Your task to perform on an android device: turn on improve location accuracy Image 0: 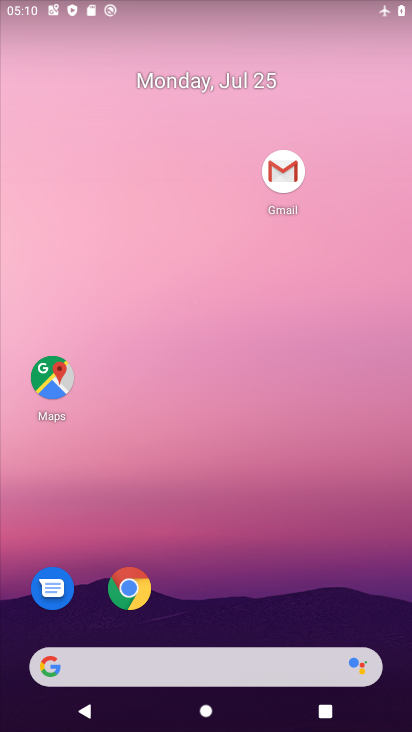
Step 0: drag from (304, 572) to (160, 4)
Your task to perform on an android device: turn on improve location accuracy Image 1: 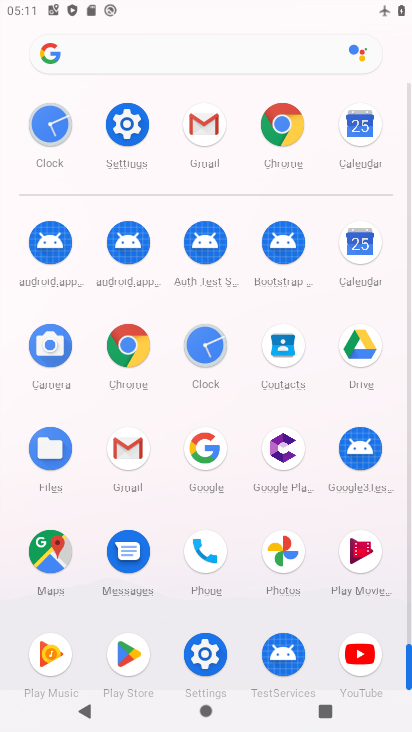
Step 1: click (135, 111)
Your task to perform on an android device: turn on improve location accuracy Image 2: 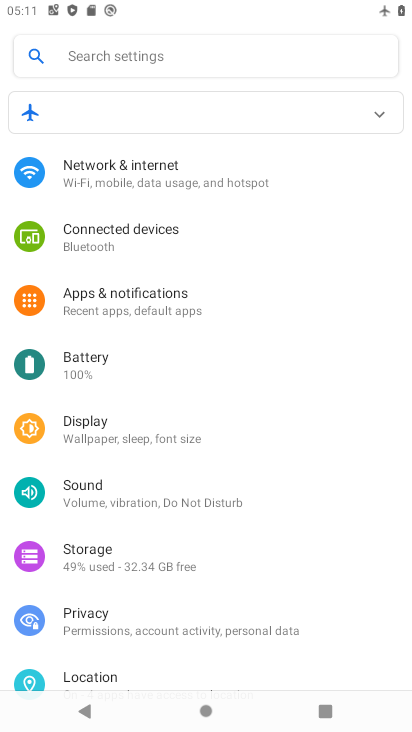
Step 2: click (131, 620)
Your task to perform on an android device: turn on improve location accuracy Image 3: 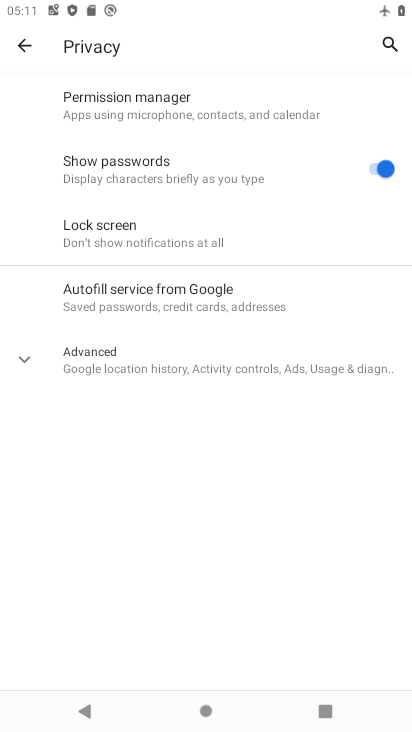
Step 3: click (131, 359)
Your task to perform on an android device: turn on improve location accuracy Image 4: 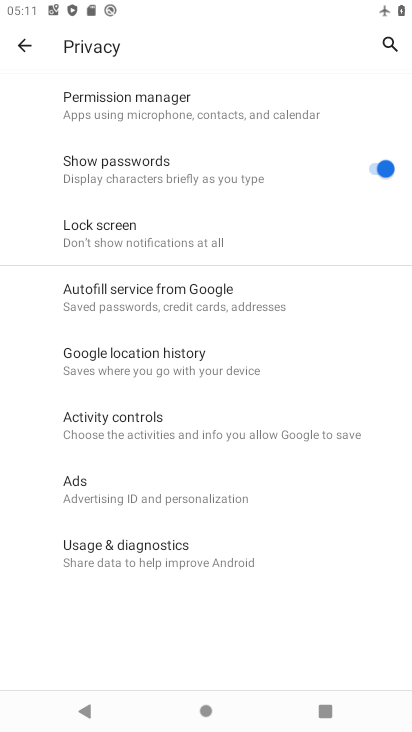
Step 4: click (31, 40)
Your task to perform on an android device: turn on improve location accuracy Image 5: 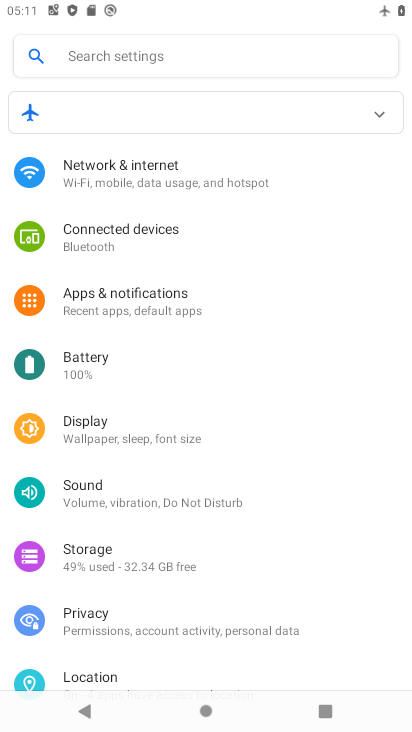
Step 5: click (91, 672)
Your task to perform on an android device: turn on improve location accuracy Image 6: 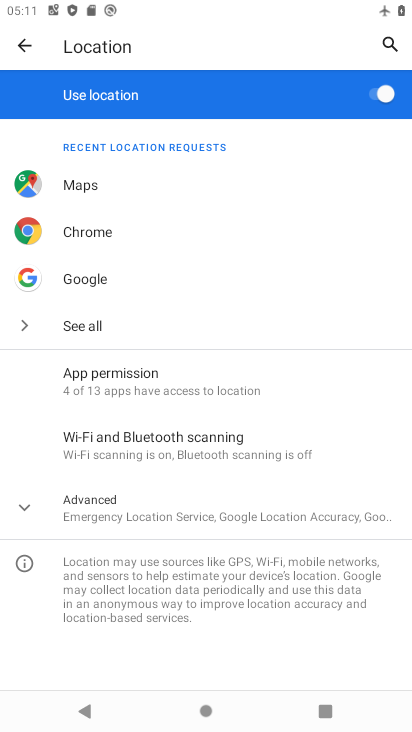
Step 6: click (104, 519)
Your task to perform on an android device: turn on improve location accuracy Image 7: 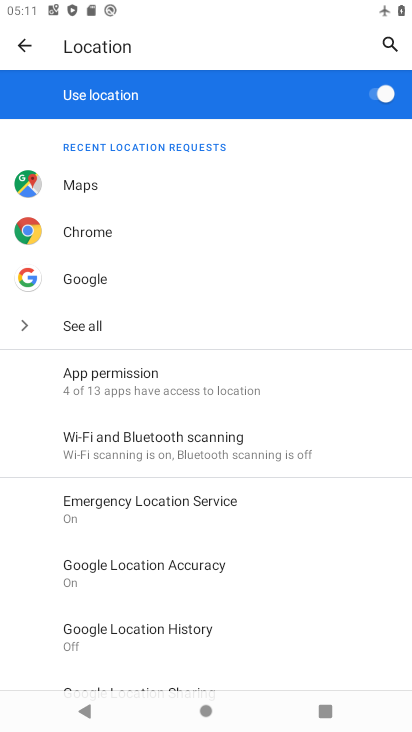
Step 7: click (174, 577)
Your task to perform on an android device: turn on improve location accuracy Image 8: 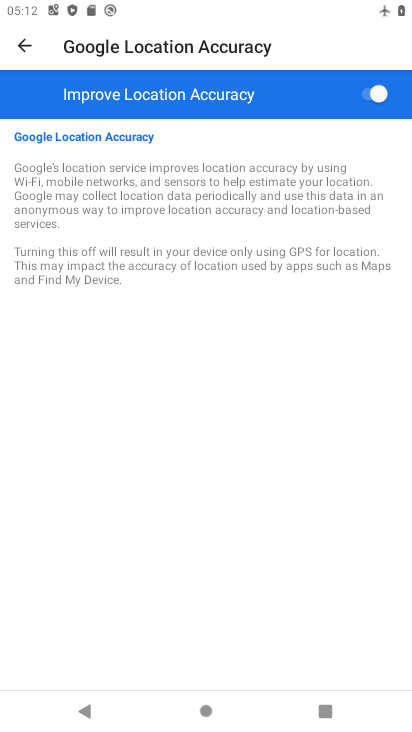
Step 8: task complete